Your task to perform on an android device: toggle airplane mode Image 0: 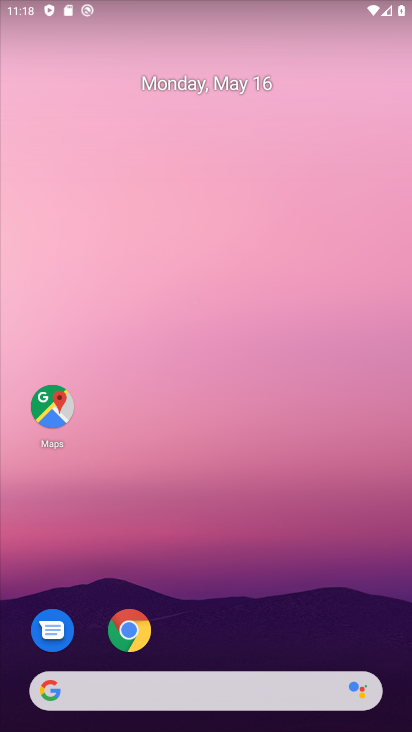
Step 0: drag from (166, 663) to (171, 254)
Your task to perform on an android device: toggle airplane mode Image 1: 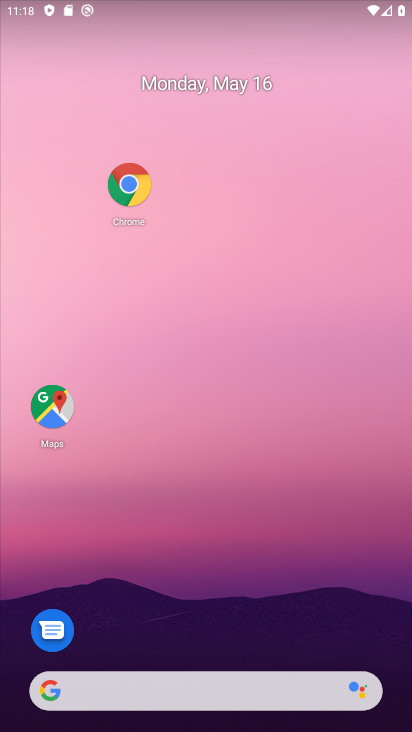
Step 1: drag from (261, 669) to (269, 315)
Your task to perform on an android device: toggle airplane mode Image 2: 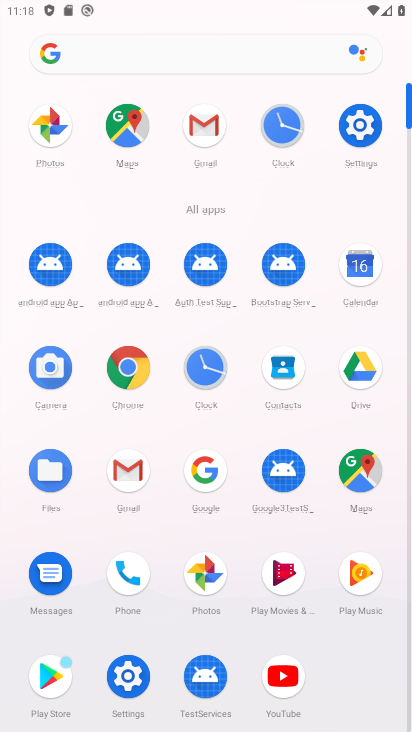
Step 2: drag from (197, 525) to (197, 288)
Your task to perform on an android device: toggle airplane mode Image 3: 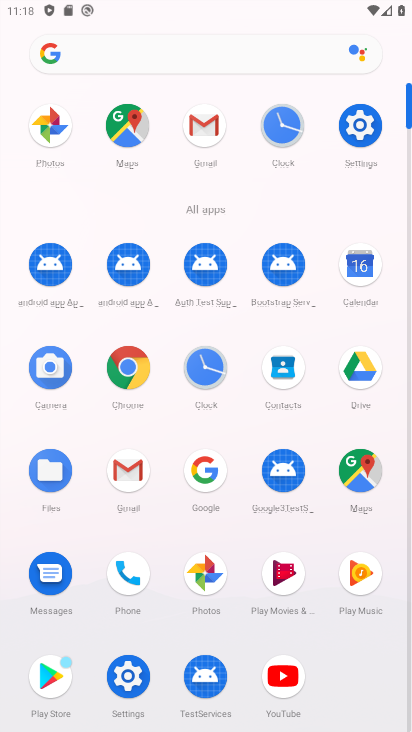
Step 3: click (361, 131)
Your task to perform on an android device: toggle airplane mode Image 4: 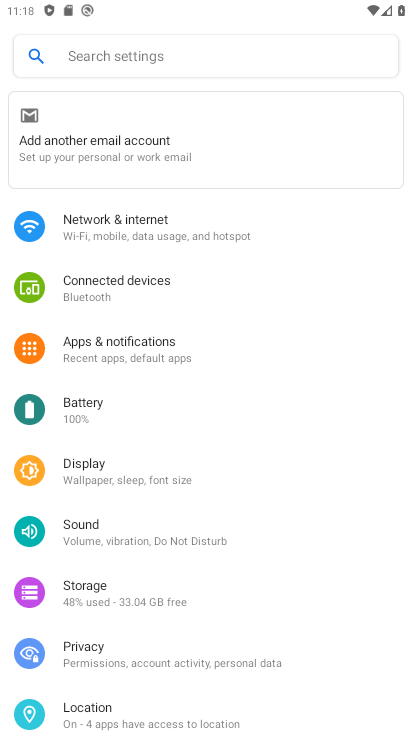
Step 4: click (112, 229)
Your task to perform on an android device: toggle airplane mode Image 5: 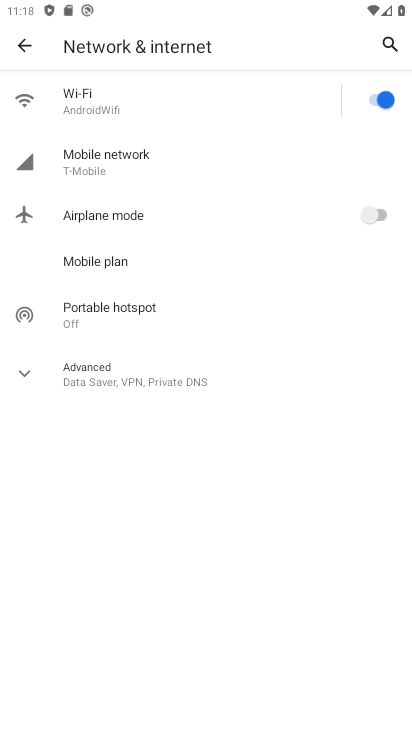
Step 5: click (380, 216)
Your task to perform on an android device: toggle airplane mode Image 6: 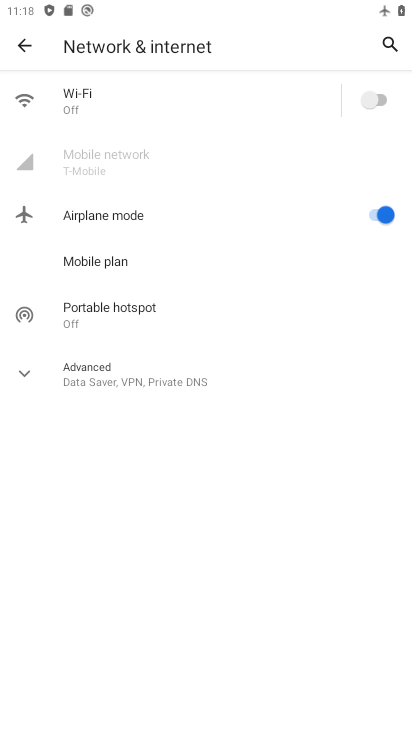
Step 6: task complete